Your task to perform on an android device: add a label to a message in the gmail app Image 0: 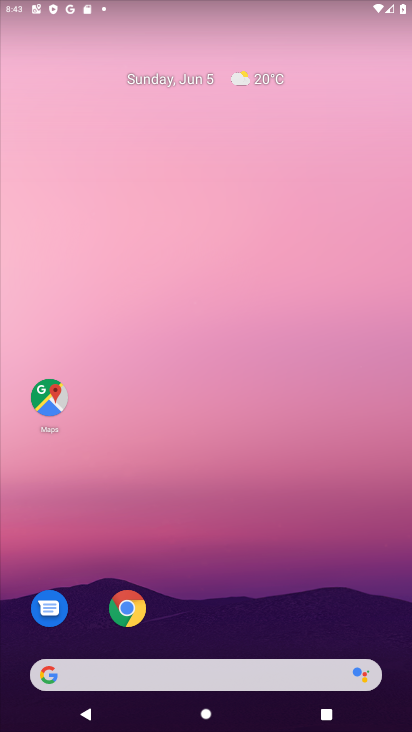
Step 0: press home button
Your task to perform on an android device: add a label to a message in the gmail app Image 1: 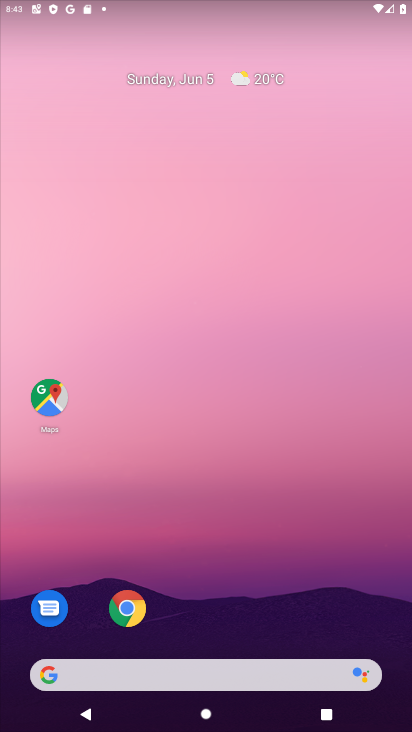
Step 1: drag from (23, 552) to (173, 240)
Your task to perform on an android device: add a label to a message in the gmail app Image 2: 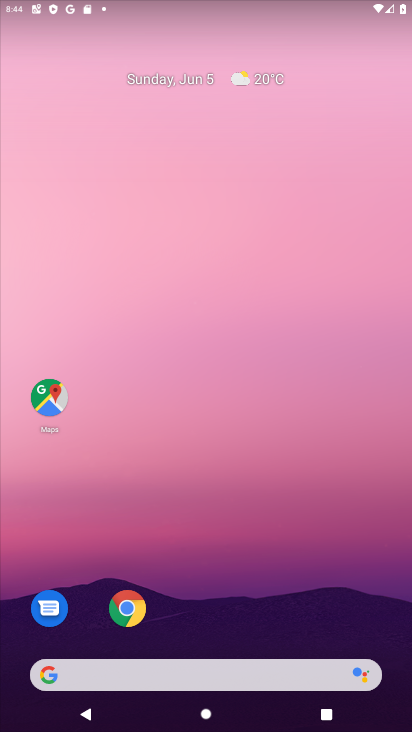
Step 2: drag from (82, 501) to (269, 172)
Your task to perform on an android device: add a label to a message in the gmail app Image 3: 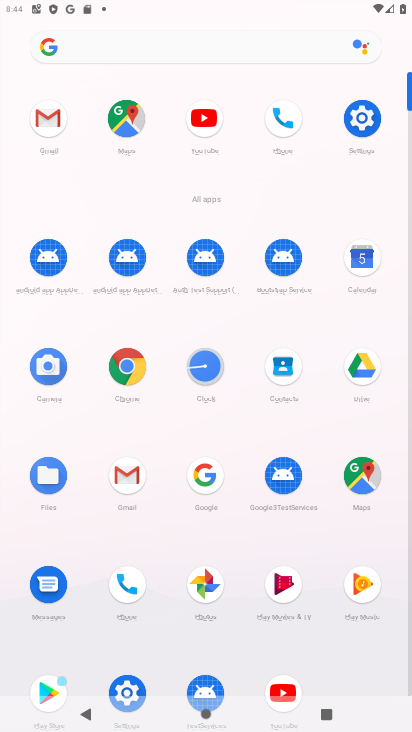
Step 3: click (134, 486)
Your task to perform on an android device: add a label to a message in the gmail app Image 4: 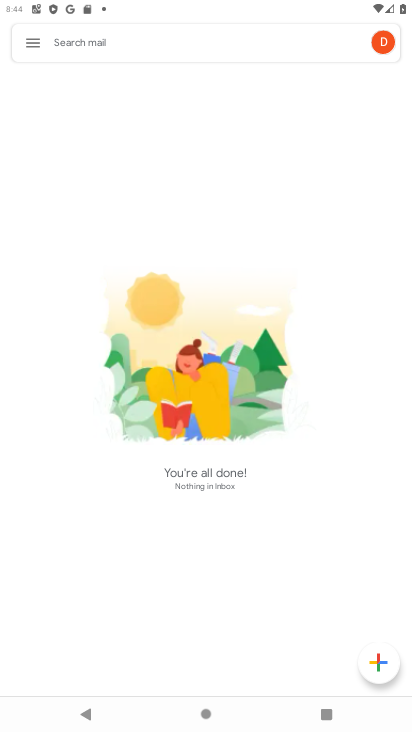
Step 4: click (23, 46)
Your task to perform on an android device: add a label to a message in the gmail app Image 5: 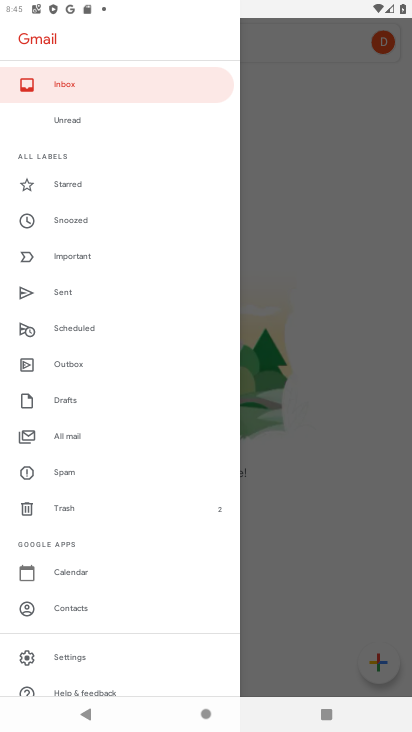
Step 5: drag from (93, 138) to (85, 584)
Your task to perform on an android device: add a label to a message in the gmail app Image 6: 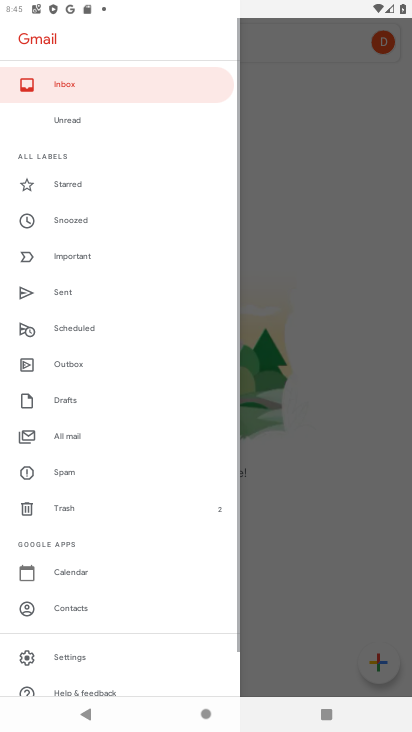
Step 6: click (108, 76)
Your task to perform on an android device: add a label to a message in the gmail app Image 7: 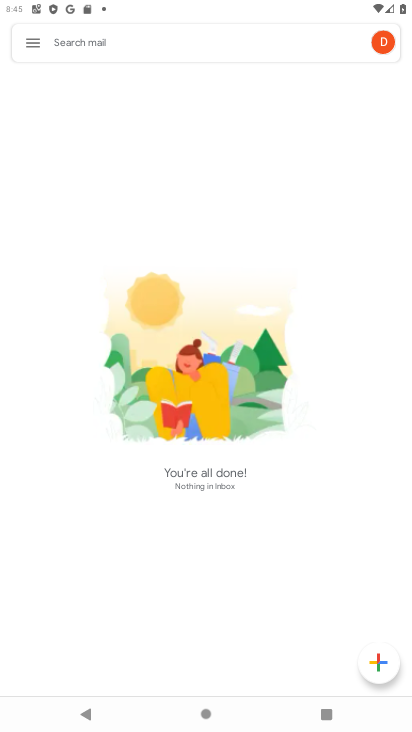
Step 7: task complete